Your task to perform on an android device: open chrome privacy settings Image 0: 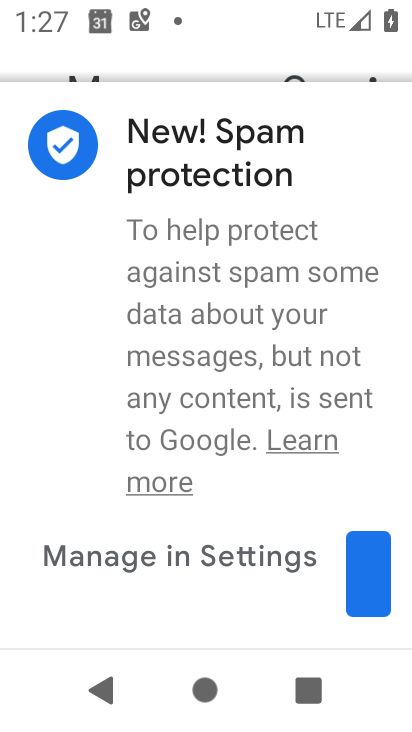
Step 0: press home button
Your task to perform on an android device: open chrome privacy settings Image 1: 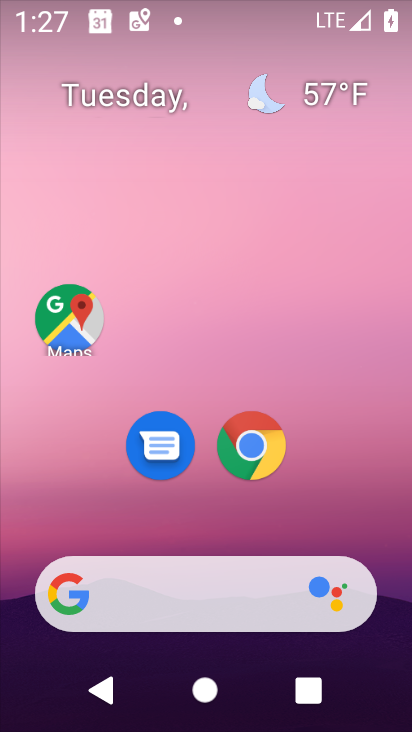
Step 1: drag from (367, 483) to (344, 127)
Your task to perform on an android device: open chrome privacy settings Image 2: 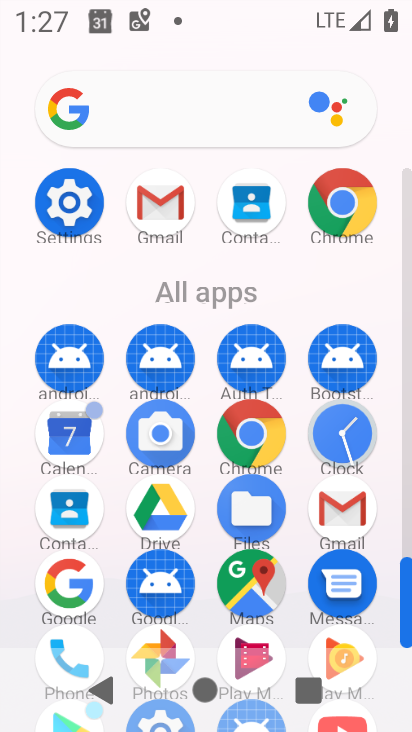
Step 2: click (243, 431)
Your task to perform on an android device: open chrome privacy settings Image 3: 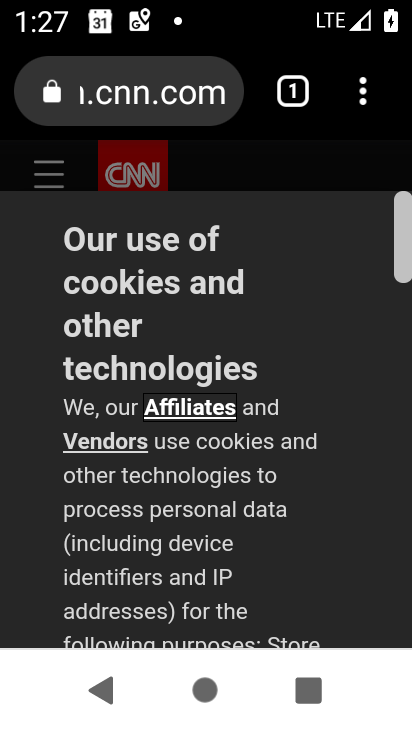
Step 3: click (365, 94)
Your task to perform on an android device: open chrome privacy settings Image 4: 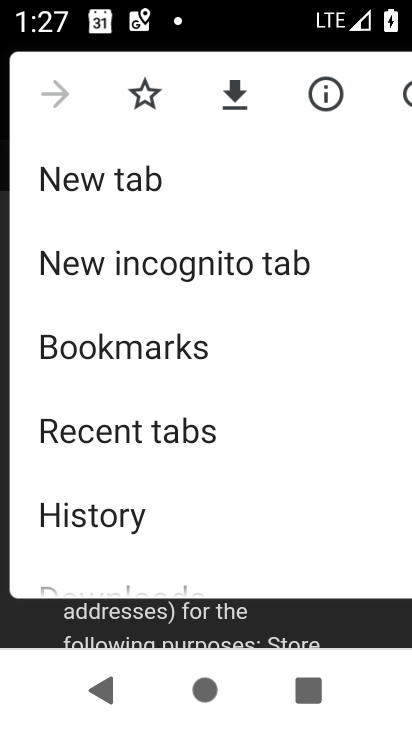
Step 4: drag from (328, 457) to (339, 308)
Your task to perform on an android device: open chrome privacy settings Image 5: 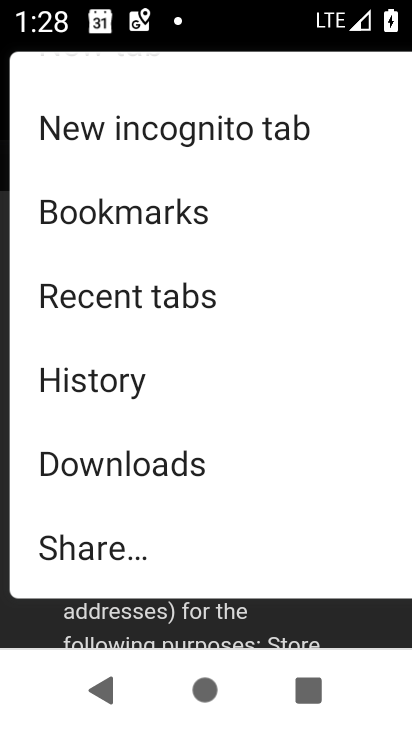
Step 5: drag from (281, 518) to (296, 348)
Your task to perform on an android device: open chrome privacy settings Image 6: 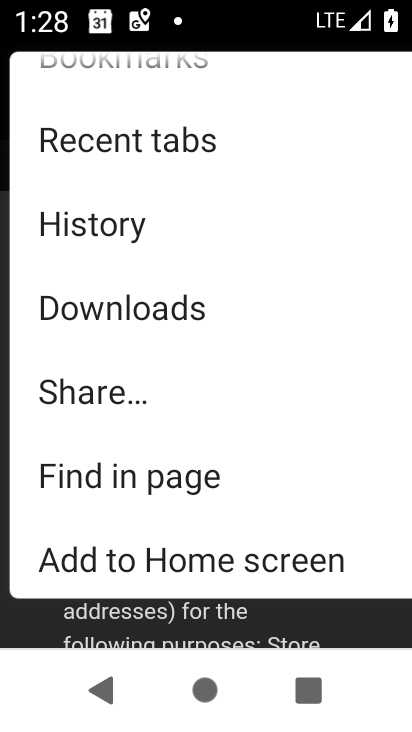
Step 6: drag from (341, 493) to (329, 350)
Your task to perform on an android device: open chrome privacy settings Image 7: 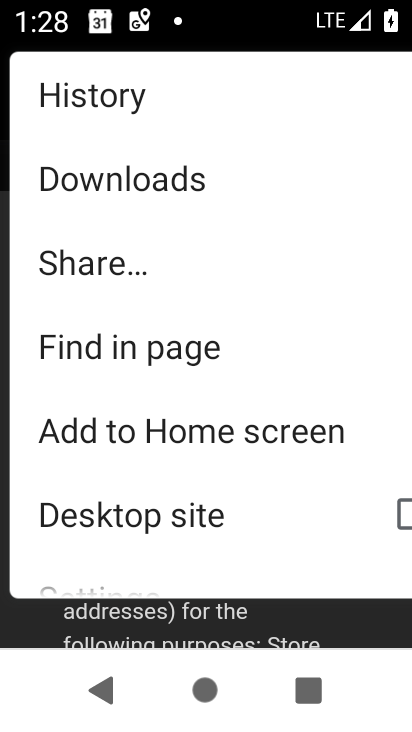
Step 7: drag from (355, 473) to (350, 310)
Your task to perform on an android device: open chrome privacy settings Image 8: 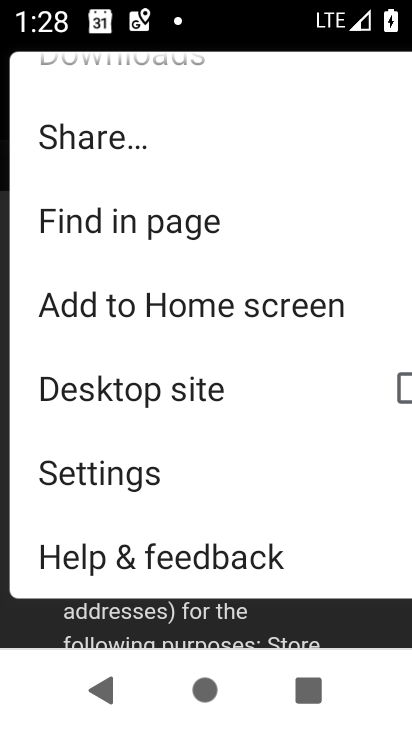
Step 8: click (162, 500)
Your task to perform on an android device: open chrome privacy settings Image 9: 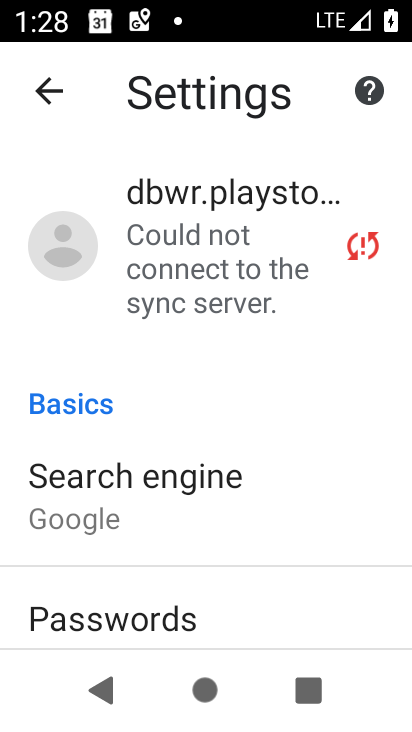
Step 9: drag from (275, 542) to (286, 422)
Your task to perform on an android device: open chrome privacy settings Image 10: 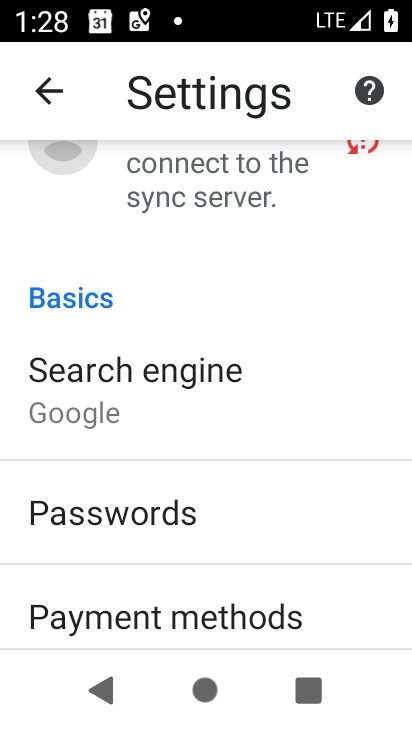
Step 10: drag from (297, 519) to (310, 393)
Your task to perform on an android device: open chrome privacy settings Image 11: 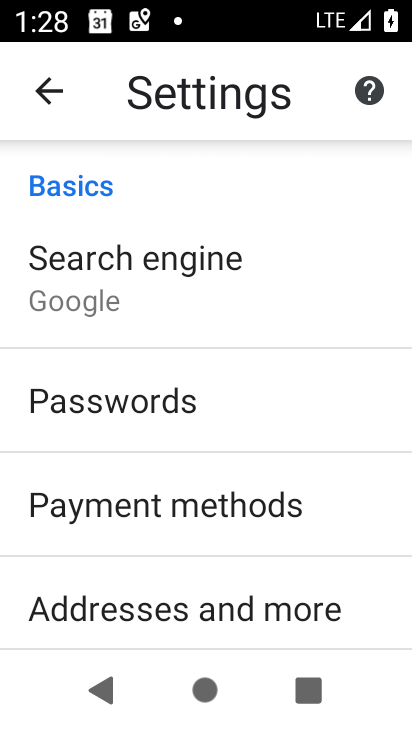
Step 11: drag from (357, 531) to (347, 386)
Your task to perform on an android device: open chrome privacy settings Image 12: 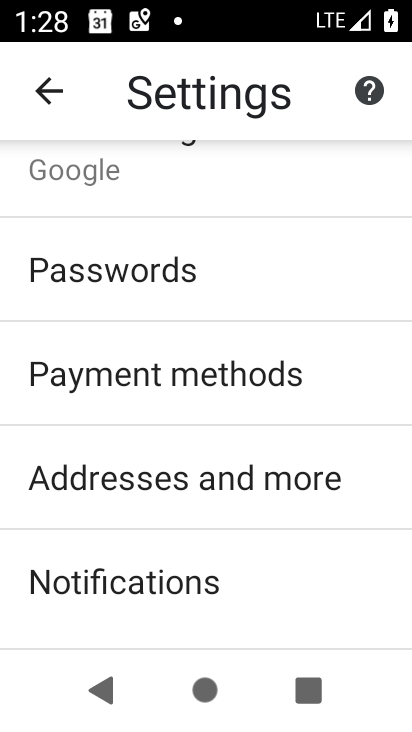
Step 12: drag from (354, 518) to (353, 399)
Your task to perform on an android device: open chrome privacy settings Image 13: 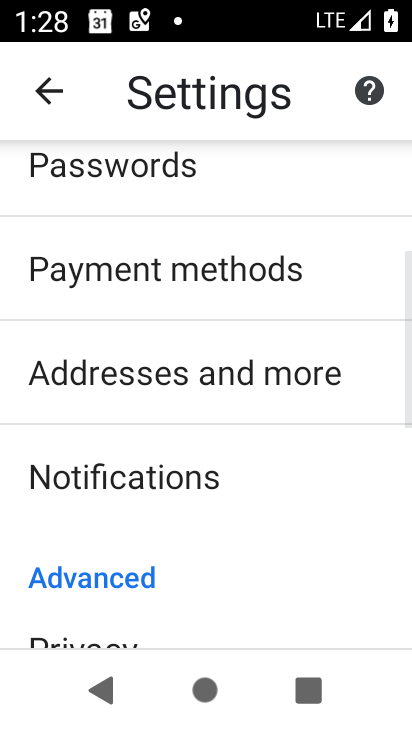
Step 13: drag from (313, 535) to (326, 396)
Your task to perform on an android device: open chrome privacy settings Image 14: 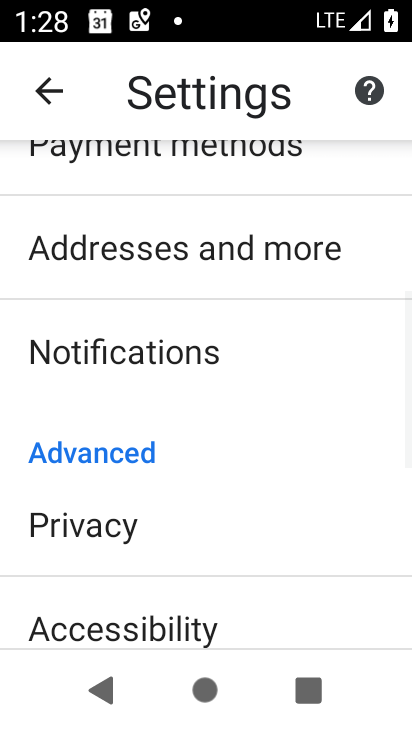
Step 14: drag from (306, 542) to (308, 427)
Your task to perform on an android device: open chrome privacy settings Image 15: 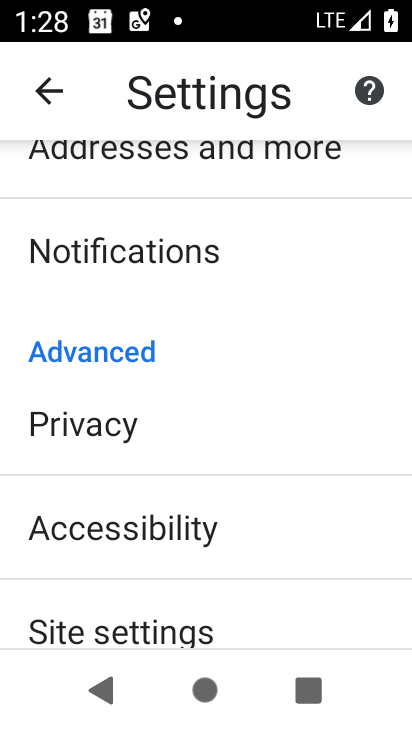
Step 15: click (142, 444)
Your task to perform on an android device: open chrome privacy settings Image 16: 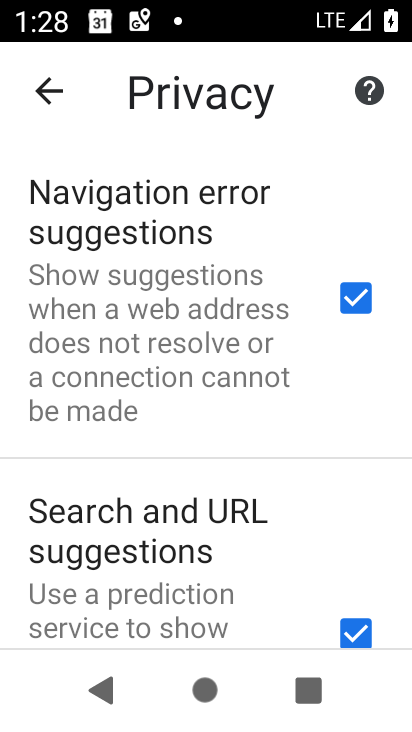
Step 16: task complete